Your task to perform on an android device: Go to privacy settings Image 0: 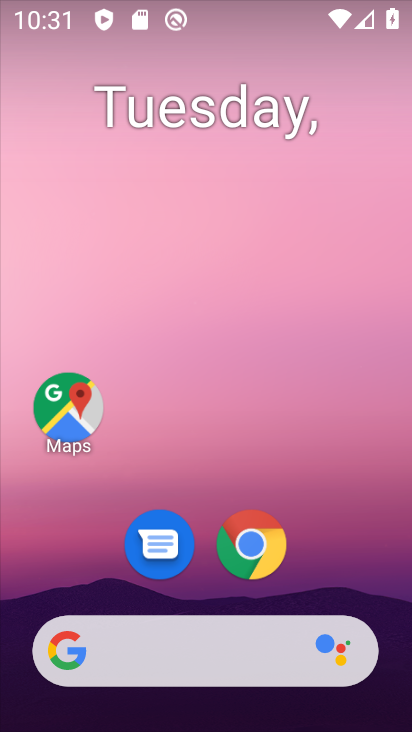
Step 0: drag from (401, 609) to (313, 69)
Your task to perform on an android device: Go to privacy settings Image 1: 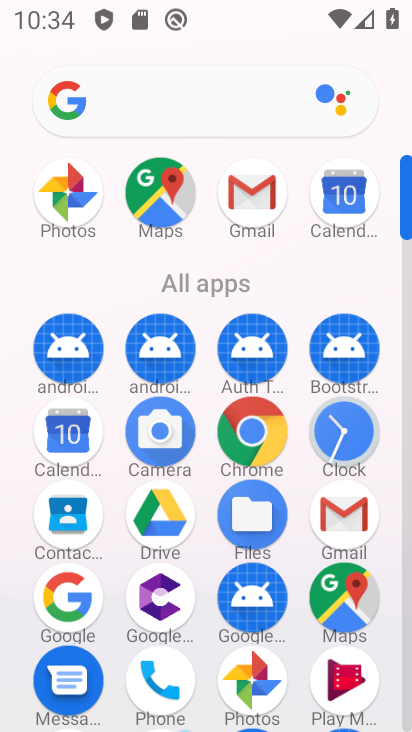
Step 1: drag from (230, 673) to (241, 128)
Your task to perform on an android device: Go to privacy settings Image 2: 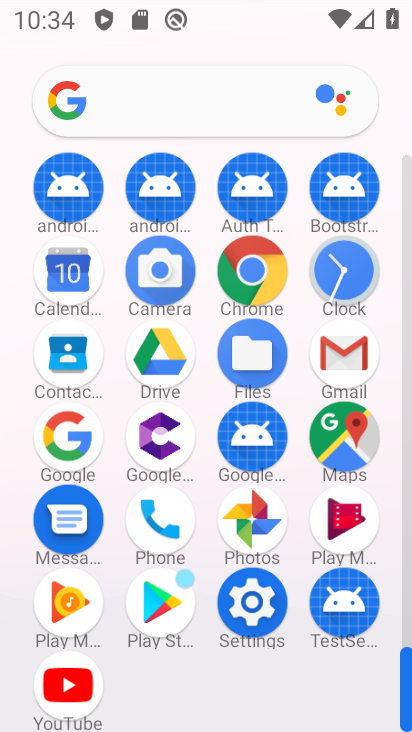
Step 2: click (243, 582)
Your task to perform on an android device: Go to privacy settings Image 3: 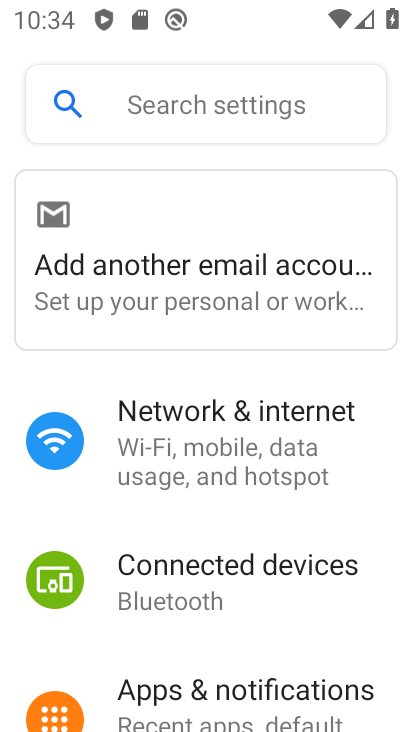
Step 3: drag from (187, 683) to (213, 136)
Your task to perform on an android device: Go to privacy settings Image 4: 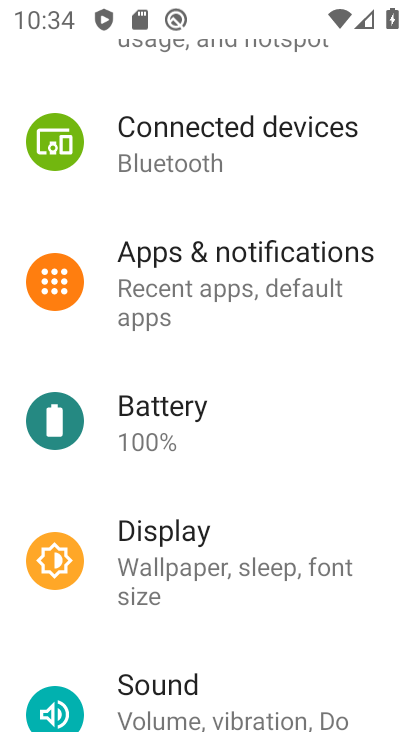
Step 4: drag from (229, 665) to (261, 105)
Your task to perform on an android device: Go to privacy settings Image 5: 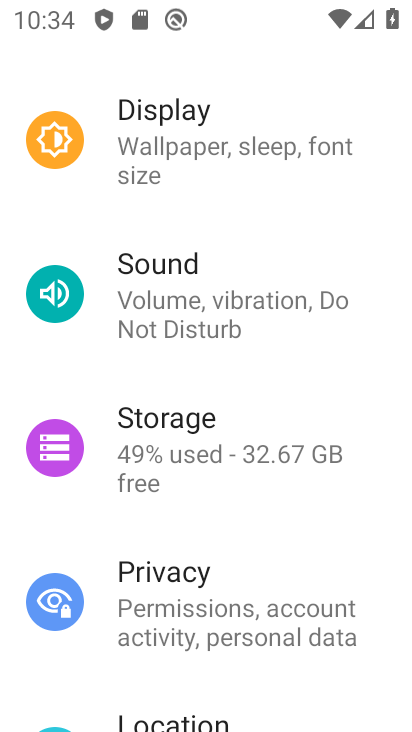
Step 5: click (196, 595)
Your task to perform on an android device: Go to privacy settings Image 6: 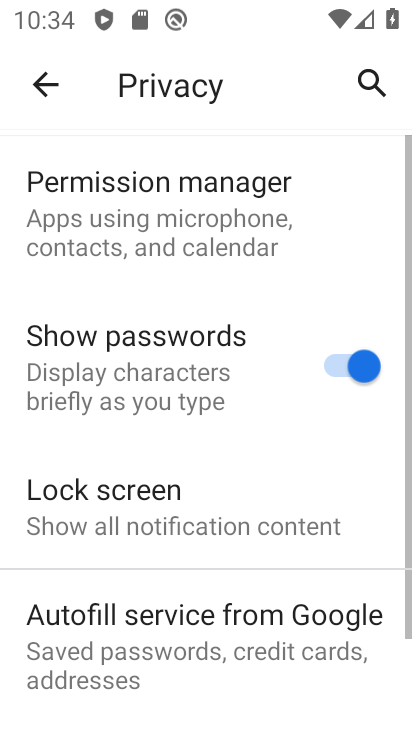
Step 6: task complete